Your task to perform on an android device: turn smart compose on in the gmail app Image 0: 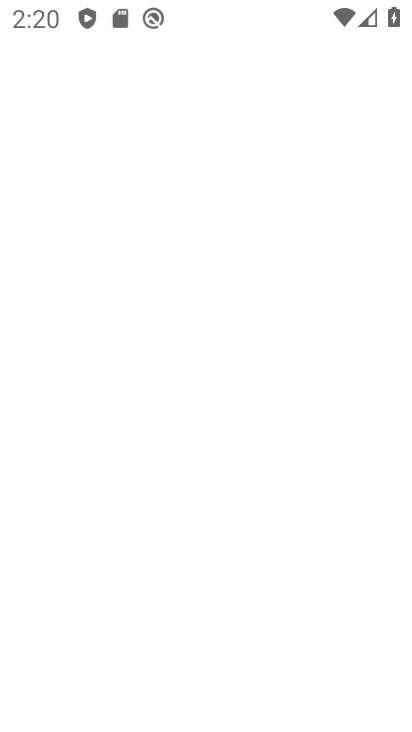
Step 0: press home button
Your task to perform on an android device: turn smart compose on in the gmail app Image 1: 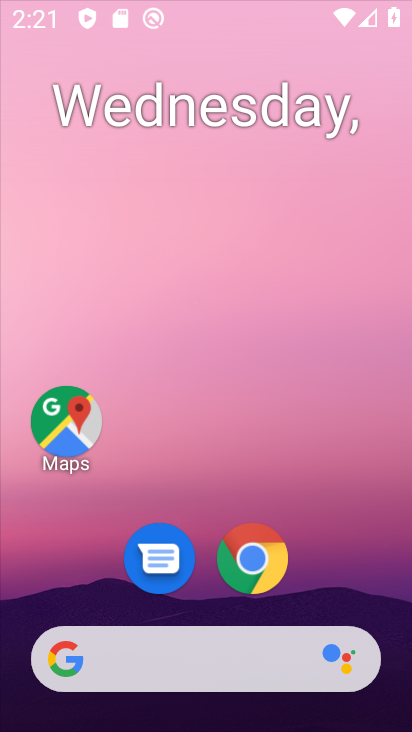
Step 1: drag from (328, 635) to (324, 214)
Your task to perform on an android device: turn smart compose on in the gmail app Image 2: 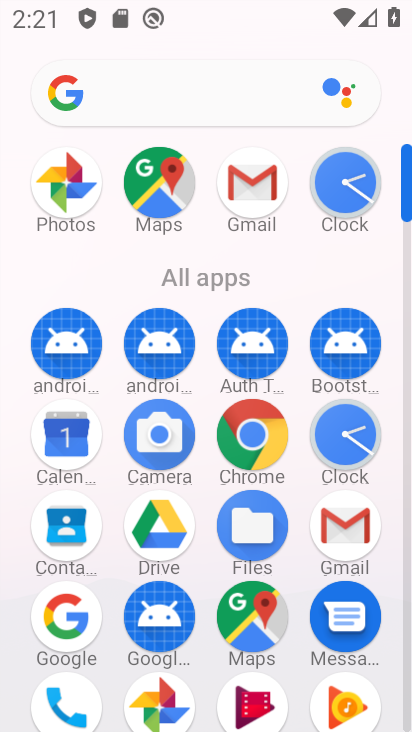
Step 2: click (330, 531)
Your task to perform on an android device: turn smart compose on in the gmail app Image 3: 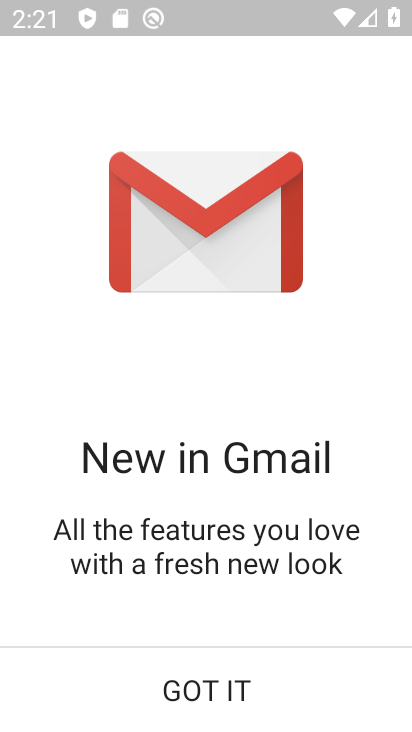
Step 3: click (201, 687)
Your task to perform on an android device: turn smart compose on in the gmail app Image 4: 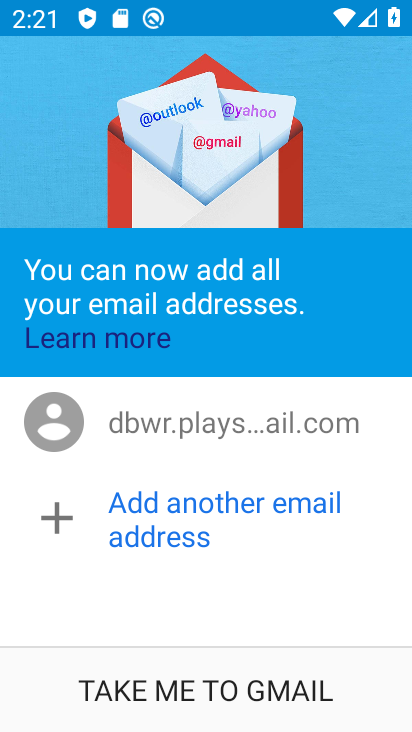
Step 4: click (201, 686)
Your task to perform on an android device: turn smart compose on in the gmail app Image 5: 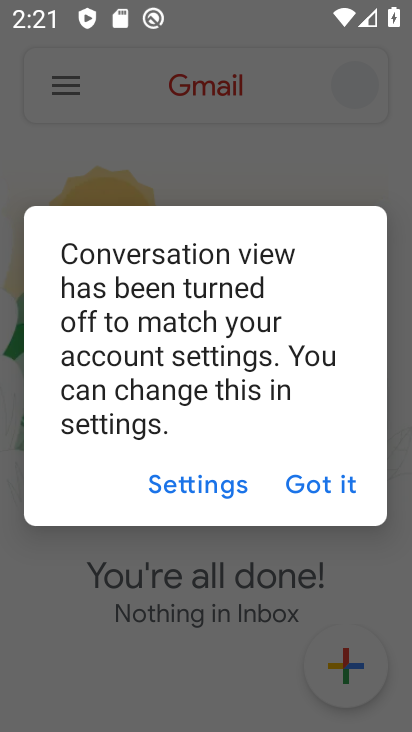
Step 5: click (317, 492)
Your task to perform on an android device: turn smart compose on in the gmail app Image 6: 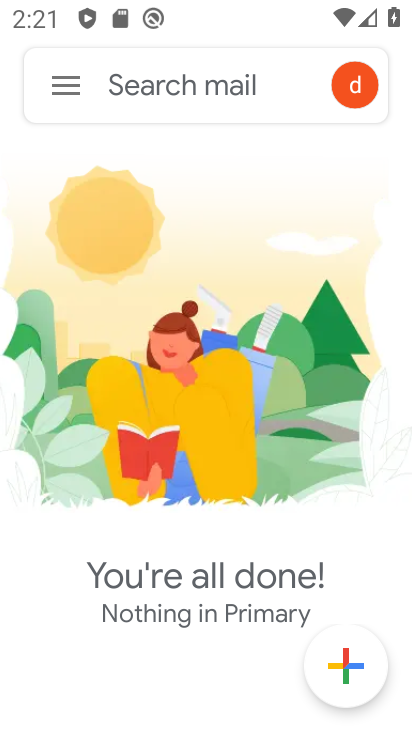
Step 6: click (68, 85)
Your task to perform on an android device: turn smart compose on in the gmail app Image 7: 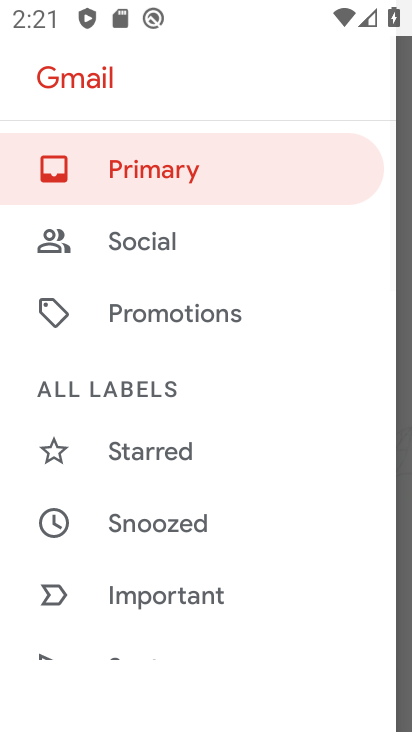
Step 7: drag from (227, 597) to (239, 250)
Your task to perform on an android device: turn smart compose on in the gmail app Image 8: 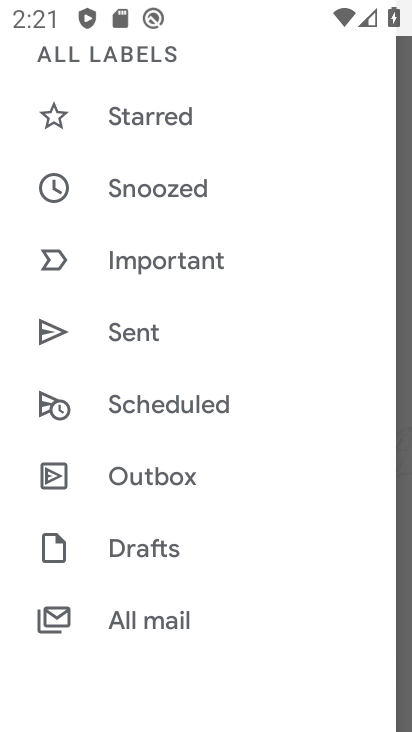
Step 8: drag from (227, 590) to (266, 276)
Your task to perform on an android device: turn smart compose on in the gmail app Image 9: 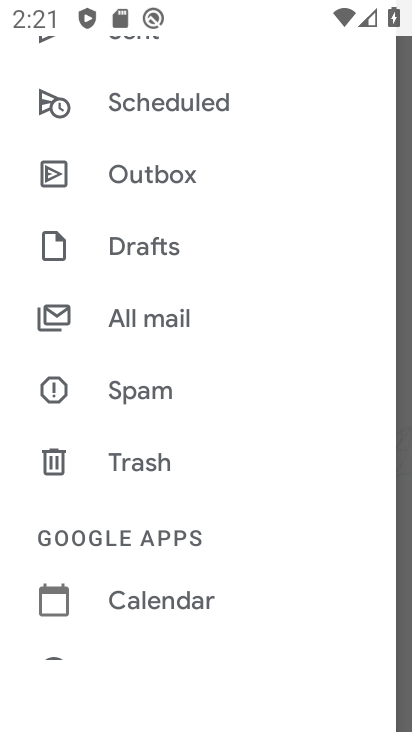
Step 9: drag from (224, 594) to (240, 293)
Your task to perform on an android device: turn smart compose on in the gmail app Image 10: 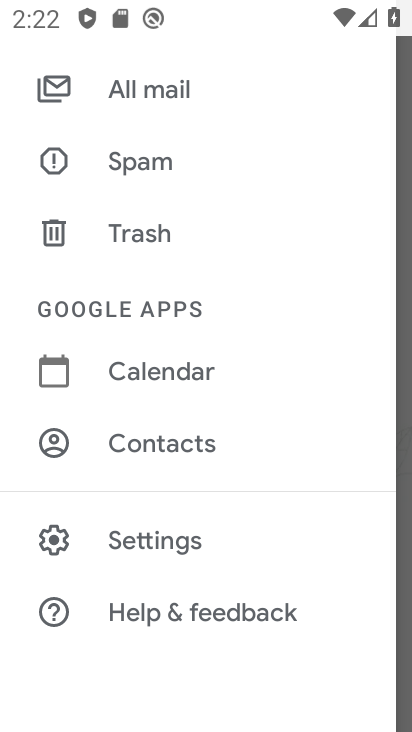
Step 10: click (211, 542)
Your task to perform on an android device: turn smart compose on in the gmail app Image 11: 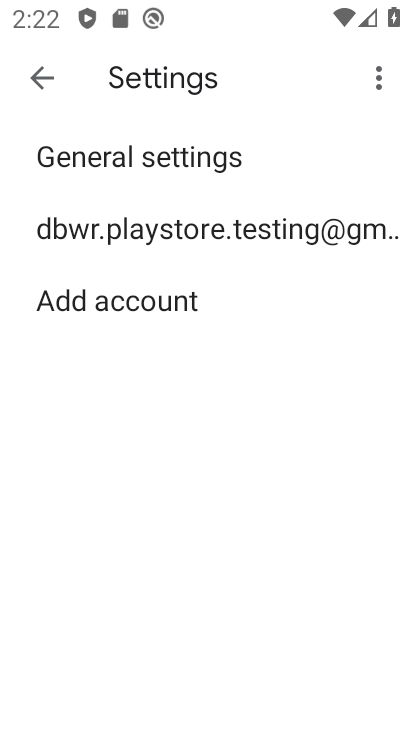
Step 11: click (257, 231)
Your task to perform on an android device: turn smart compose on in the gmail app Image 12: 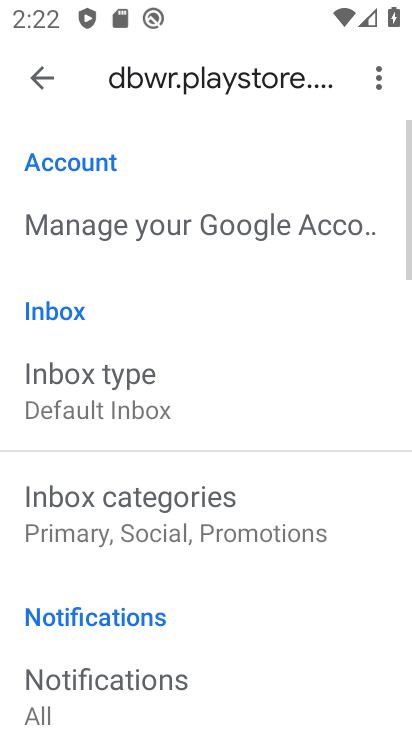
Step 12: task complete